Your task to perform on an android device: Go to calendar. Show me events next week Image 0: 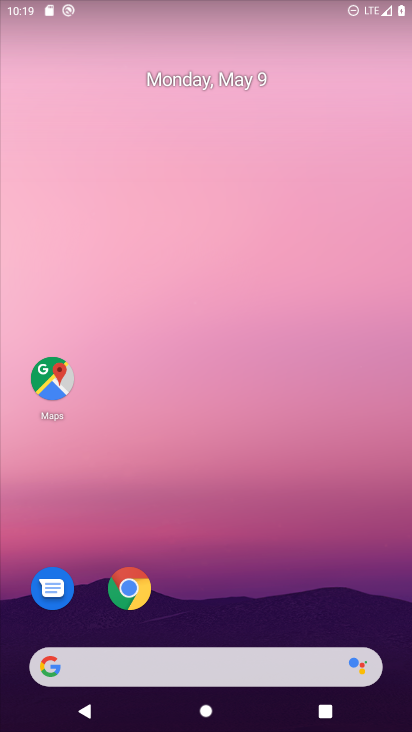
Step 0: drag from (229, 501) to (226, 11)
Your task to perform on an android device: Go to calendar. Show me events next week Image 1: 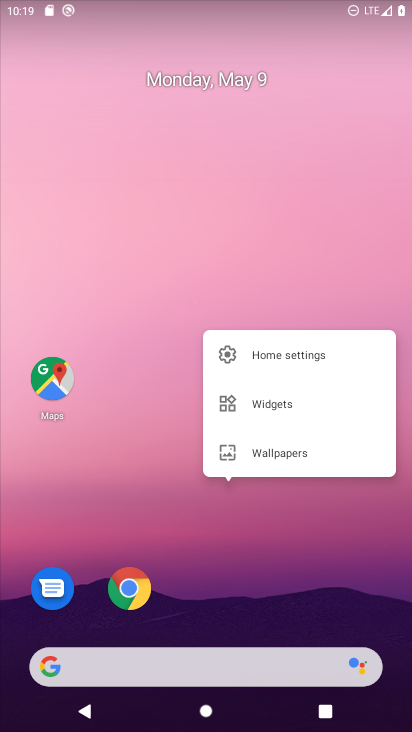
Step 1: click (131, 475)
Your task to perform on an android device: Go to calendar. Show me events next week Image 2: 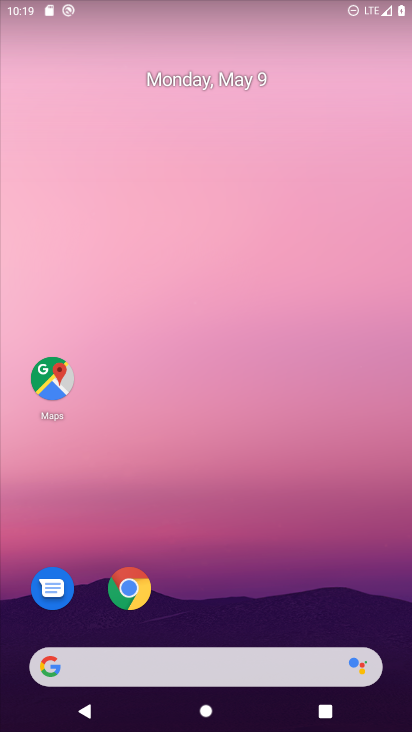
Step 2: drag from (174, 536) to (142, 48)
Your task to perform on an android device: Go to calendar. Show me events next week Image 3: 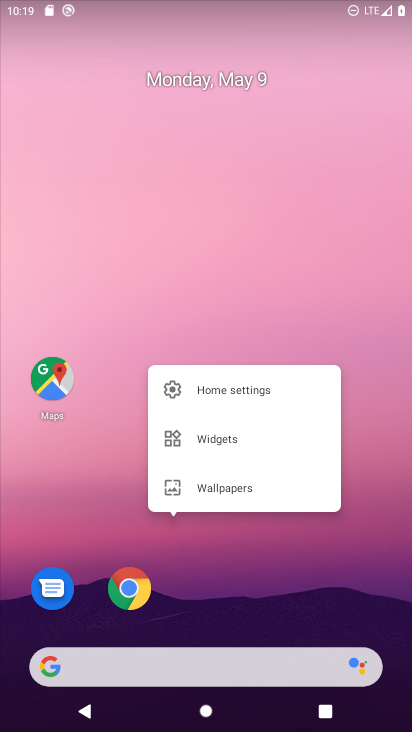
Step 3: click (288, 592)
Your task to perform on an android device: Go to calendar. Show me events next week Image 4: 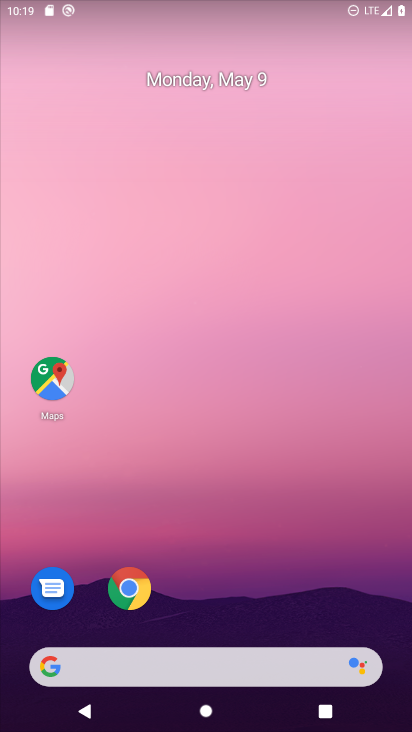
Step 4: drag from (288, 592) to (275, 168)
Your task to perform on an android device: Go to calendar. Show me events next week Image 5: 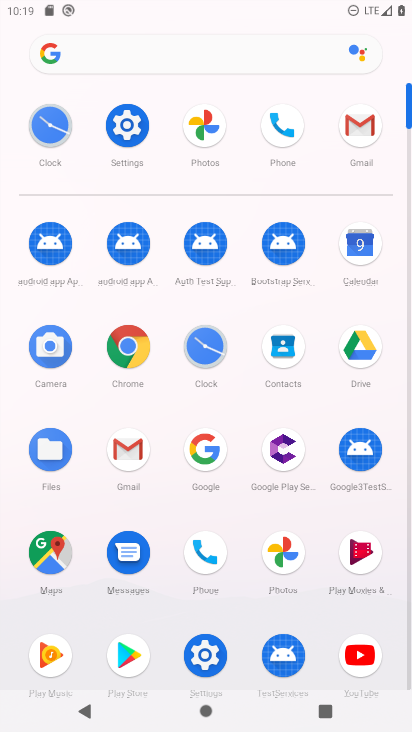
Step 5: click (354, 259)
Your task to perform on an android device: Go to calendar. Show me events next week Image 6: 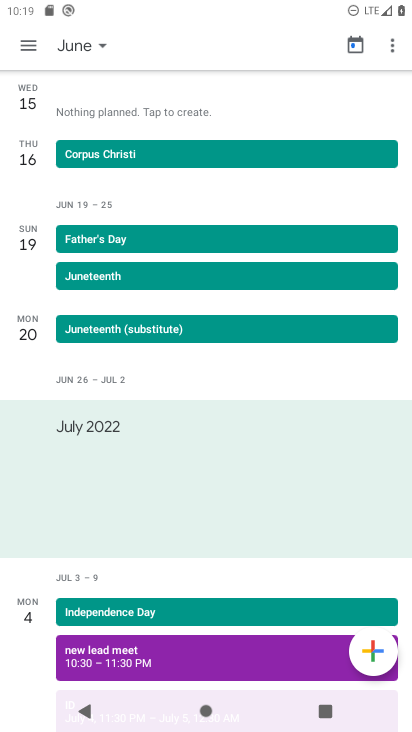
Step 6: click (35, 40)
Your task to perform on an android device: Go to calendar. Show me events next week Image 7: 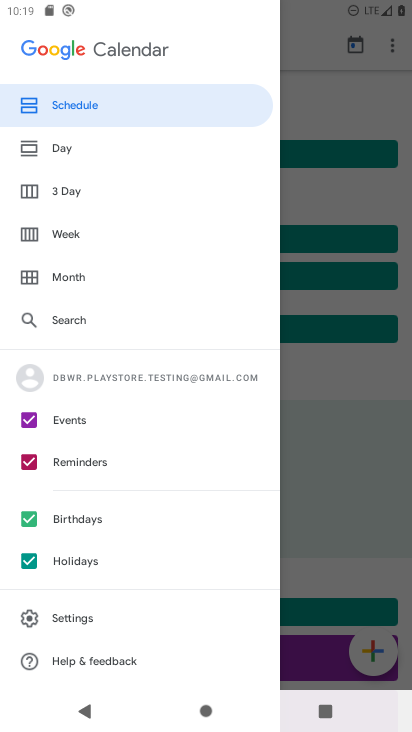
Step 7: click (80, 269)
Your task to perform on an android device: Go to calendar. Show me events next week Image 8: 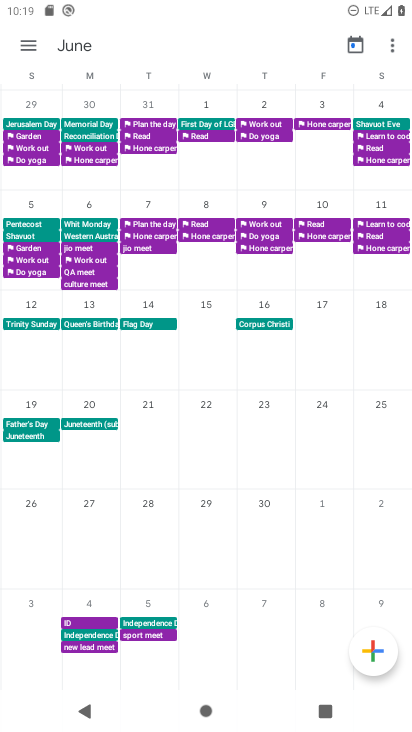
Step 8: task complete